Your task to perform on an android device: What's the weather going to be this weekend? Image 0: 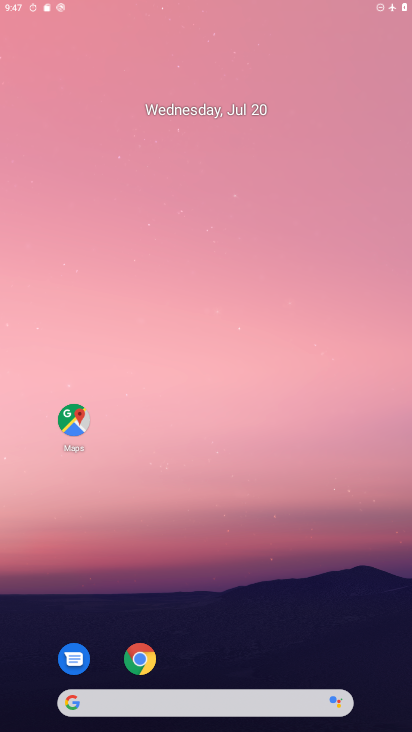
Step 0: click (257, 42)
Your task to perform on an android device: What's the weather going to be this weekend? Image 1: 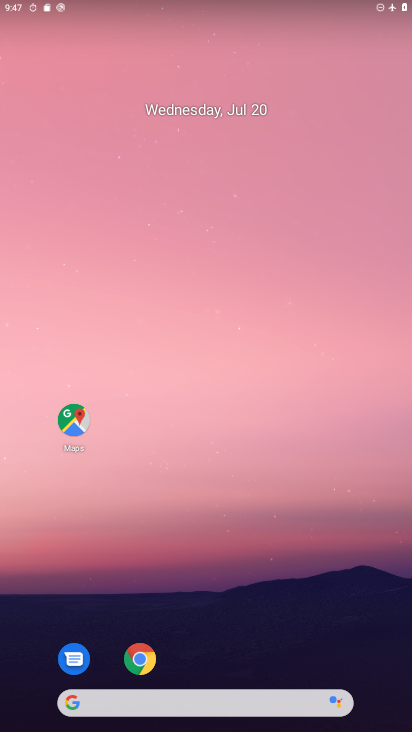
Step 1: drag from (314, 618) to (246, 45)
Your task to perform on an android device: What's the weather going to be this weekend? Image 2: 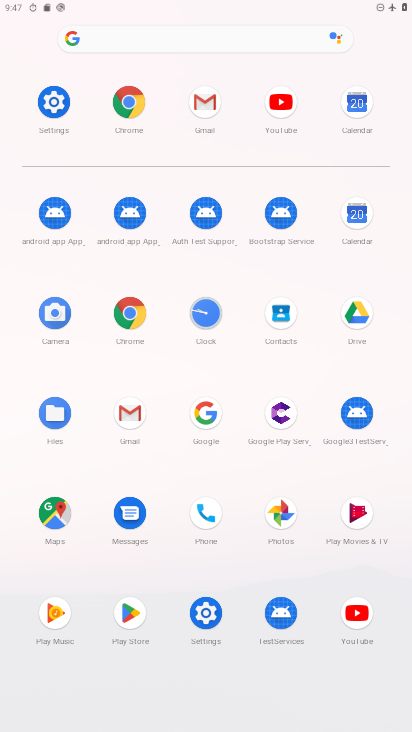
Step 2: click (125, 91)
Your task to perform on an android device: What's the weather going to be this weekend? Image 3: 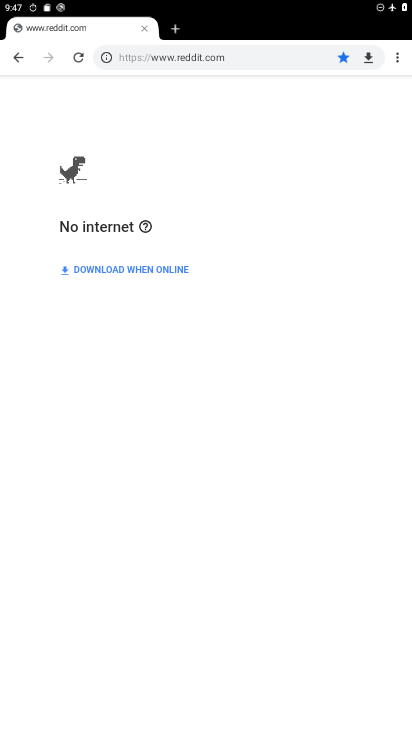
Step 3: click (156, 50)
Your task to perform on an android device: What's the weather going to be this weekend? Image 4: 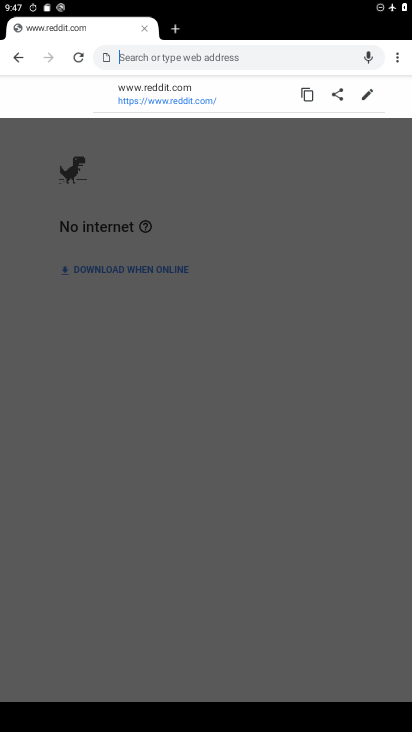
Step 4: type "weather"
Your task to perform on an android device: What's the weather going to be this weekend? Image 5: 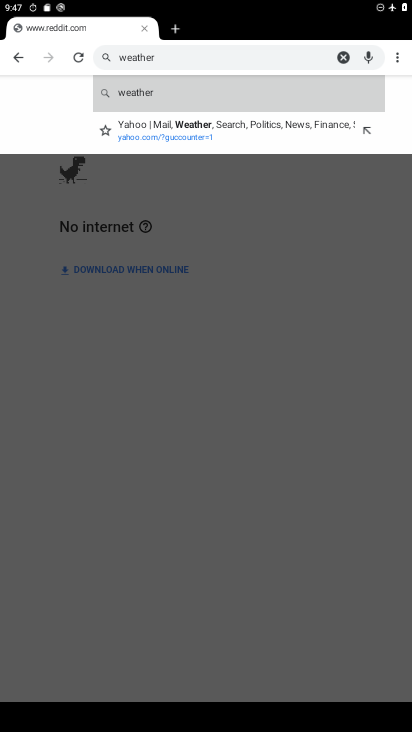
Step 5: click (240, 87)
Your task to perform on an android device: What's the weather going to be this weekend? Image 6: 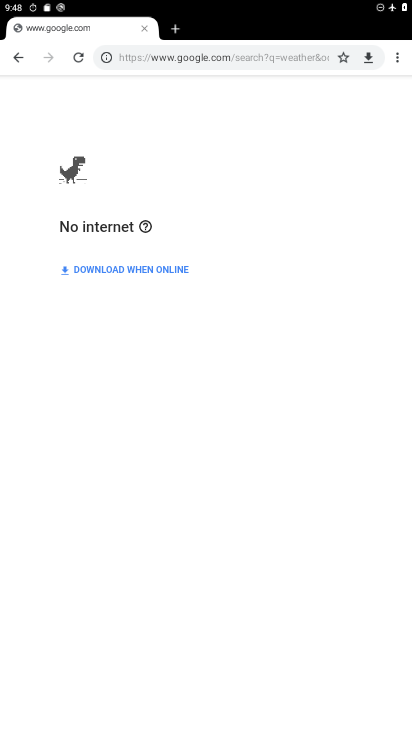
Step 6: task complete